Your task to perform on an android device: open app "Airtel Thanks" Image 0: 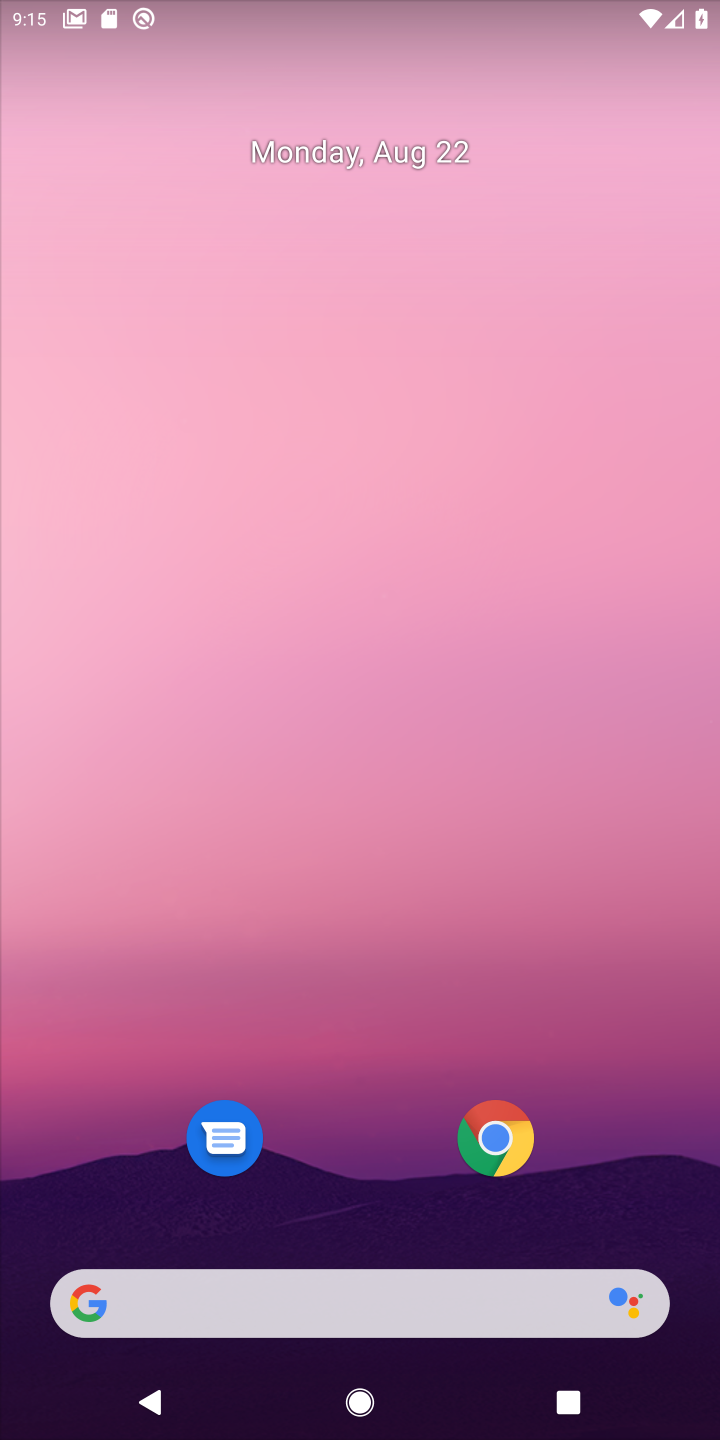
Step 0: drag from (374, 1205) to (283, 254)
Your task to perform on an android device: open app "Airtel Thanks" Image 1: 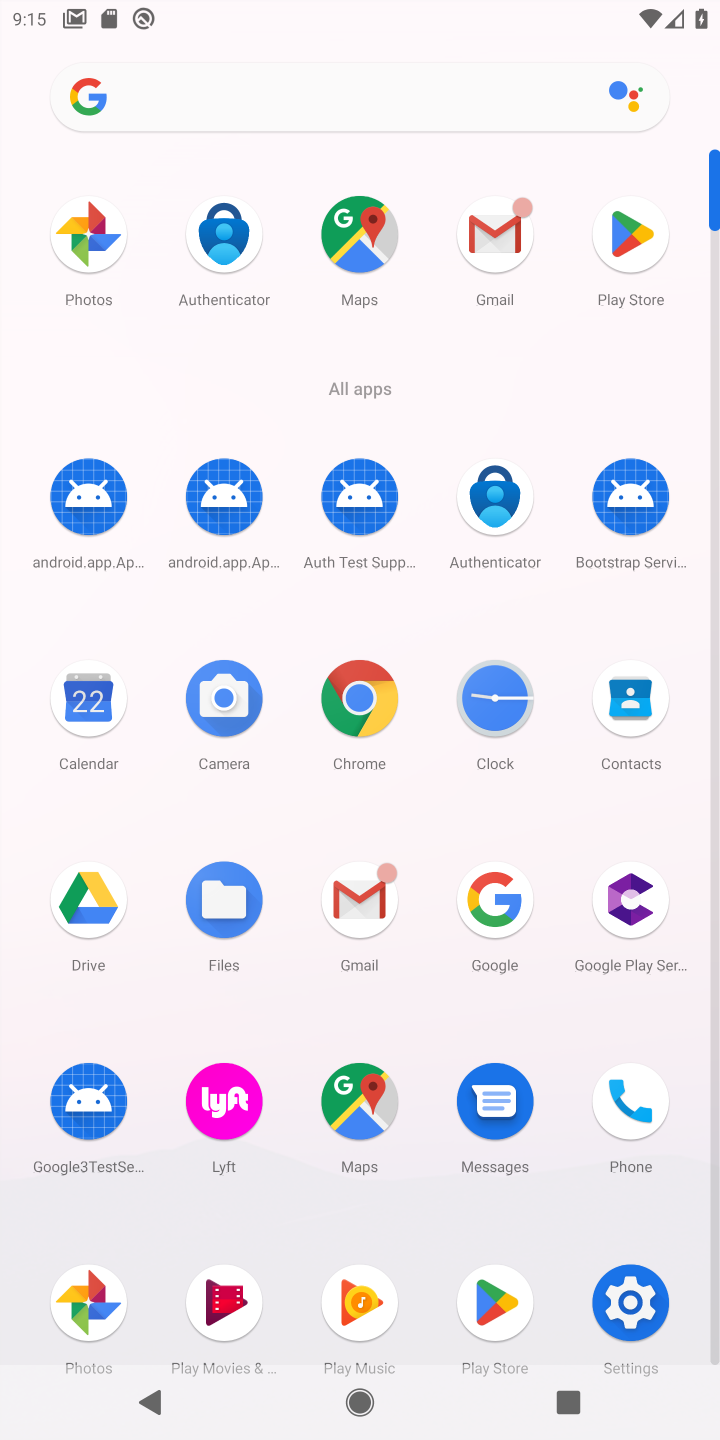
Step 1: click (494, 1284)
Your task to perform on an android device: open app "Airtel Thanks" Image 2: 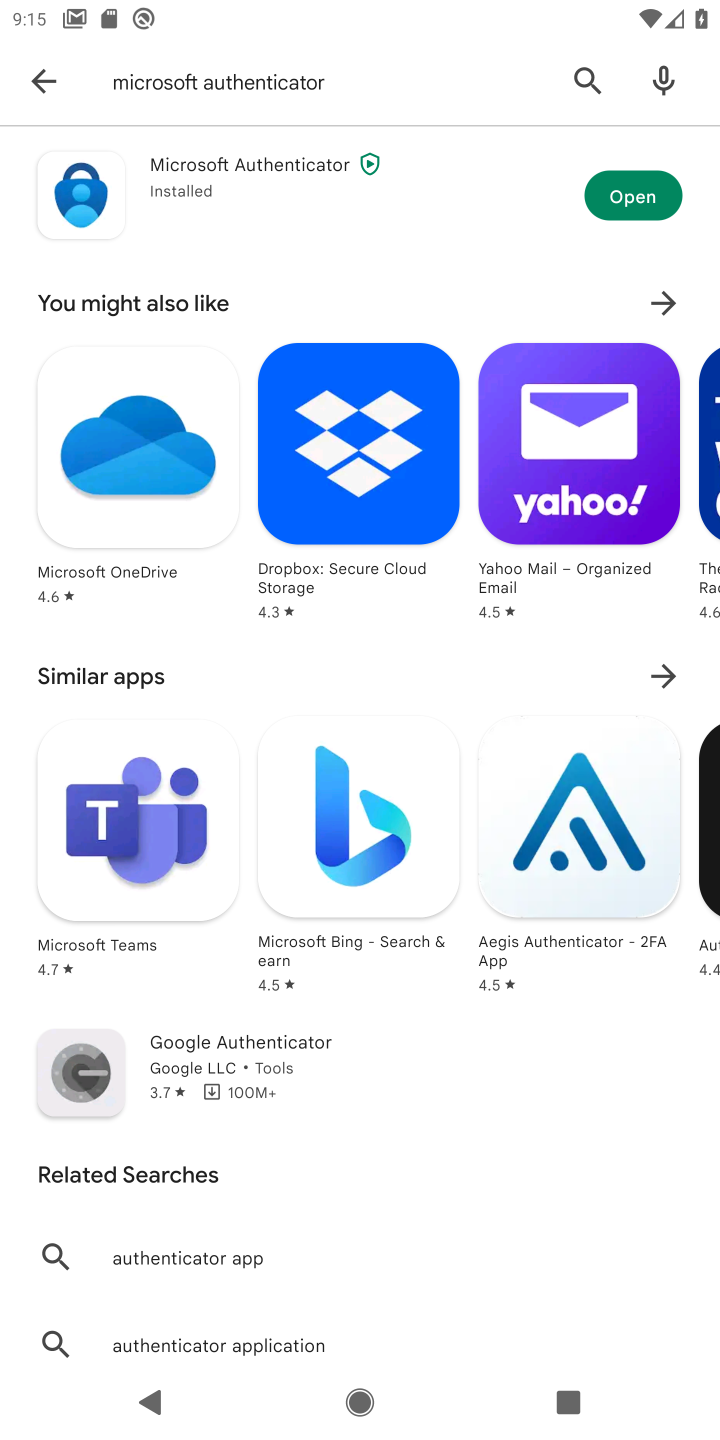
Step 2: click (64, 73)
Your task to perform on an android device: open app "Airtel Thanks" Image 3: 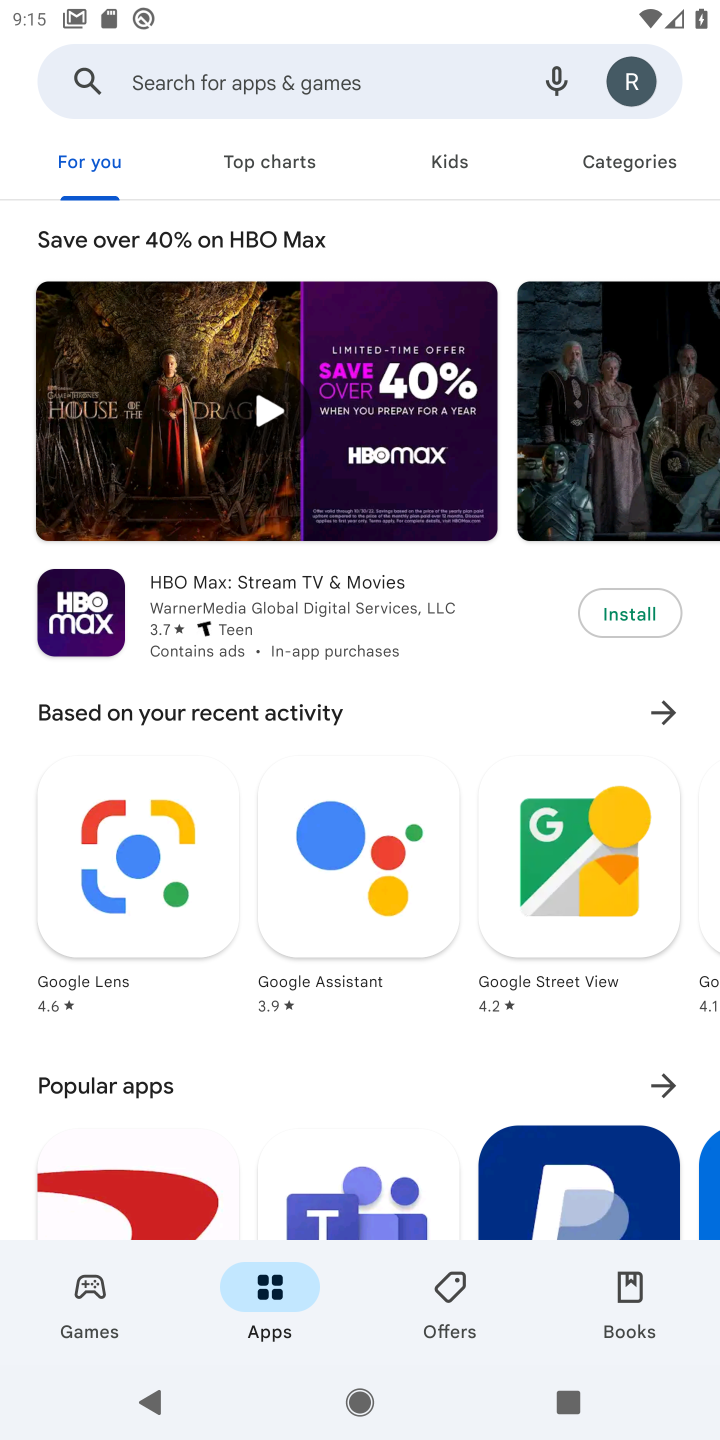
Step 3: click (238, 62)
Your task to perform on an android device: open app "Airtel Thanks" Image 4: 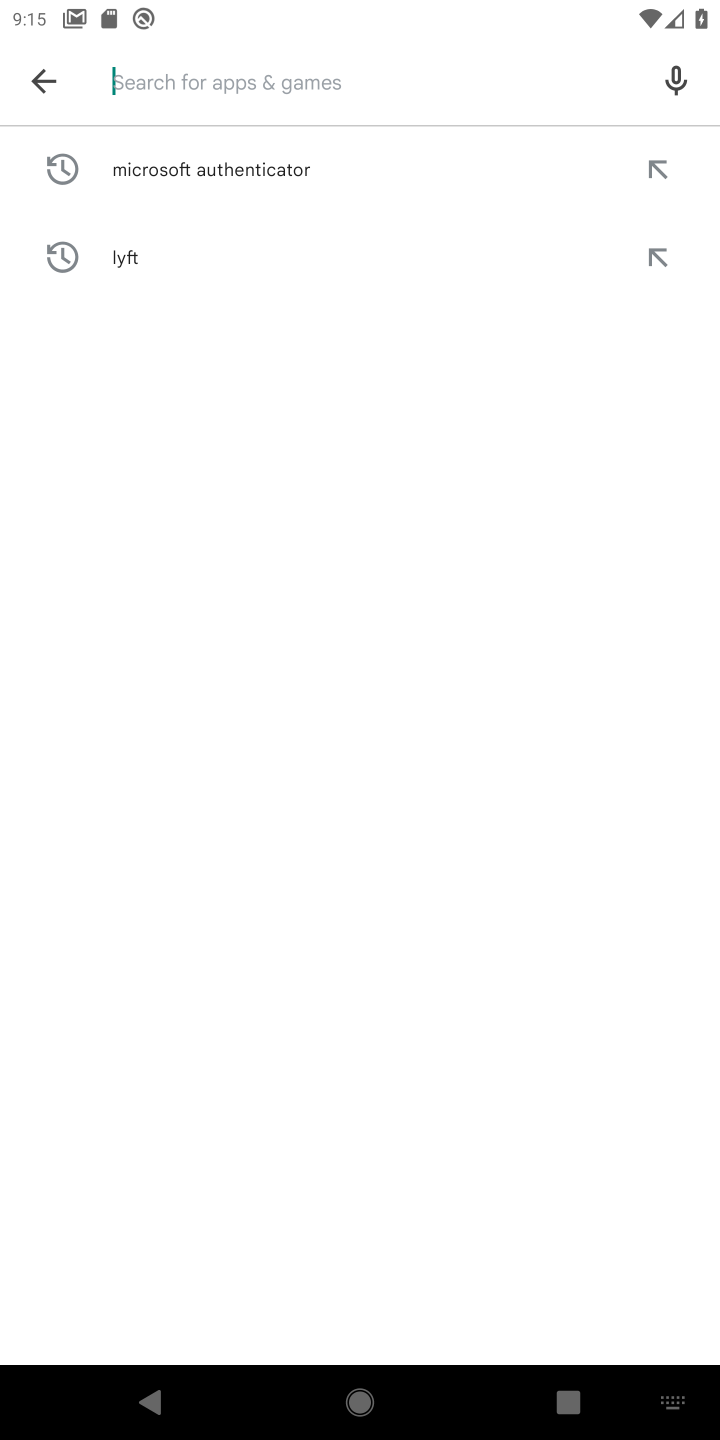
Step 4: type "Airtel Thank"
Your task to perform on an android device: open app "Airtel Thanks" Image 5: 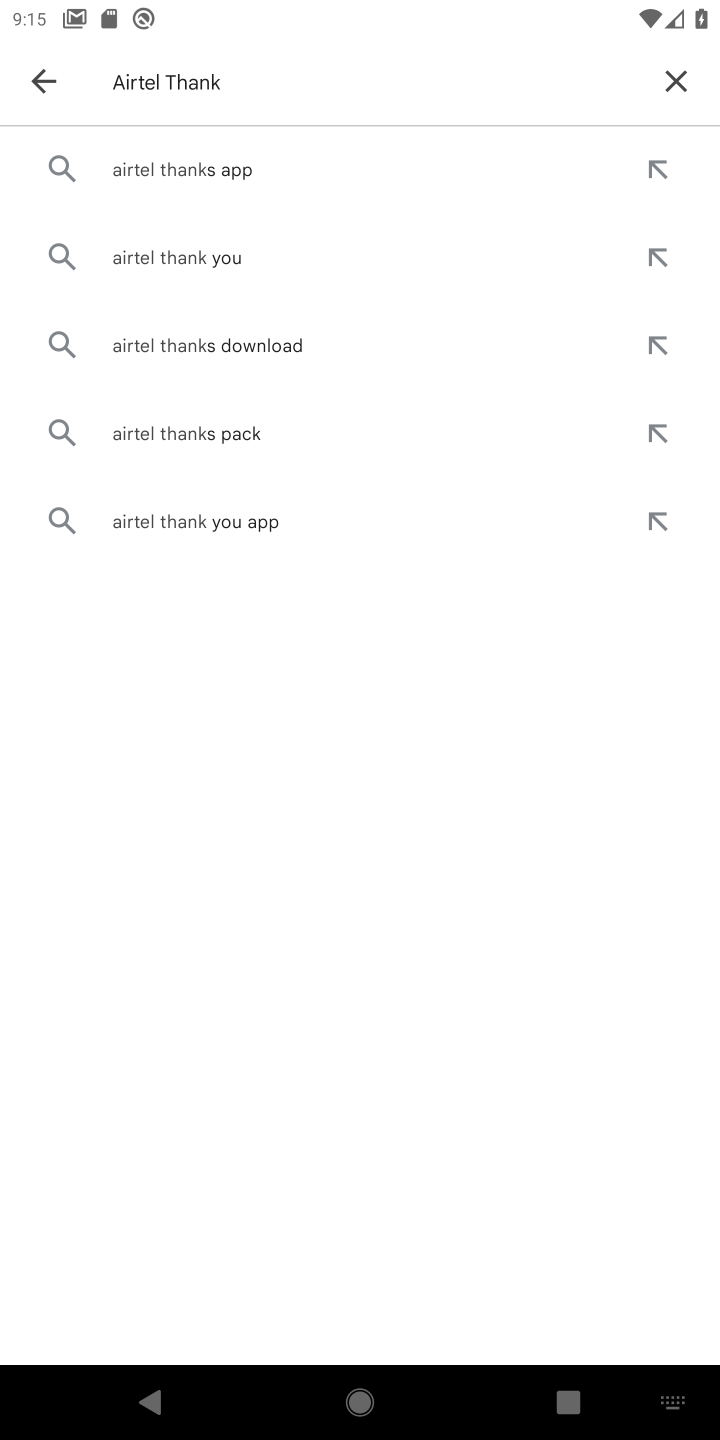
Step 5: click (208, 170)
Your task to perform on an android device: open app "Airtel Thanks" Image 6: 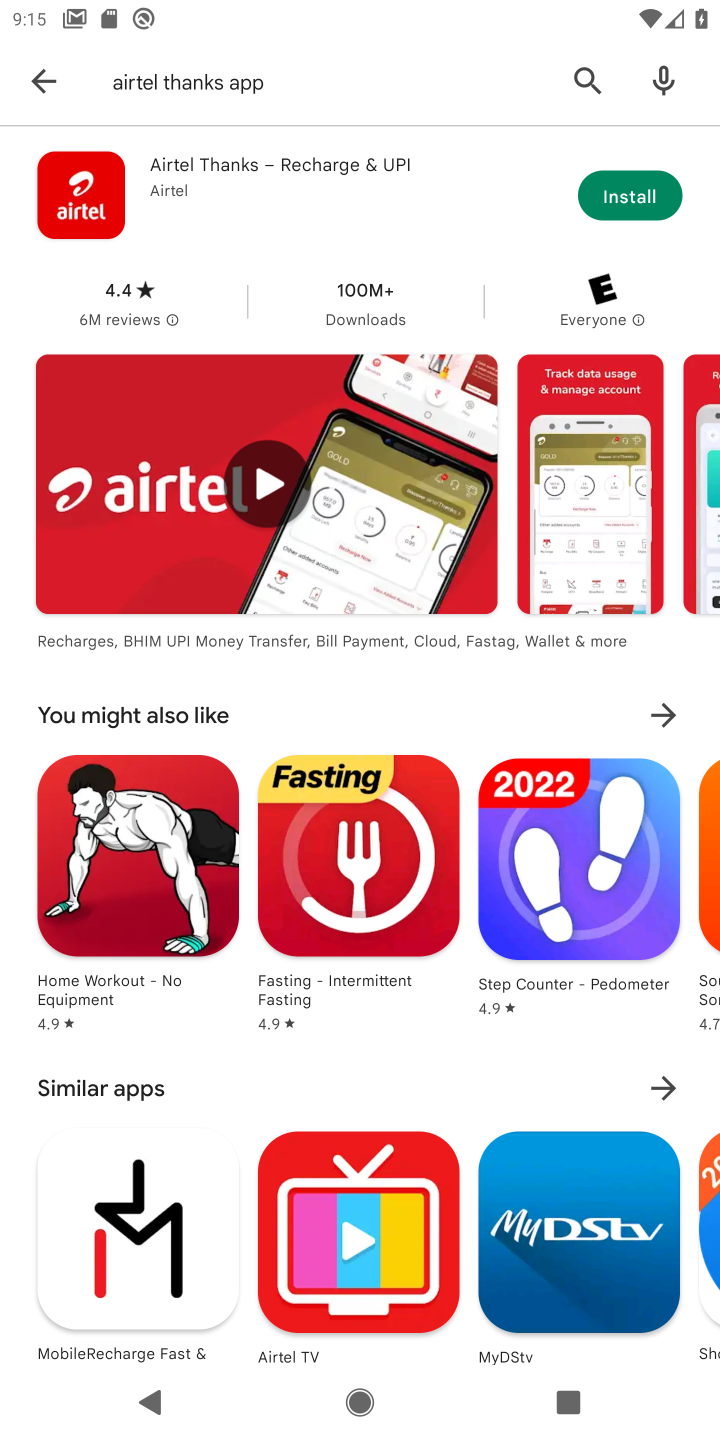
Step 6: task complete